Your task to perform on an android device: turn on translation in the chrome app Image 0: 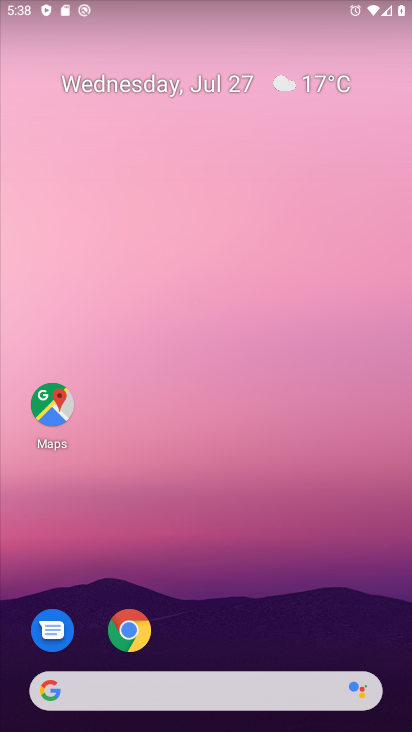
Step 0: press home button
Your task to perform on an android device: turn on translation in the chrome app Image 1: 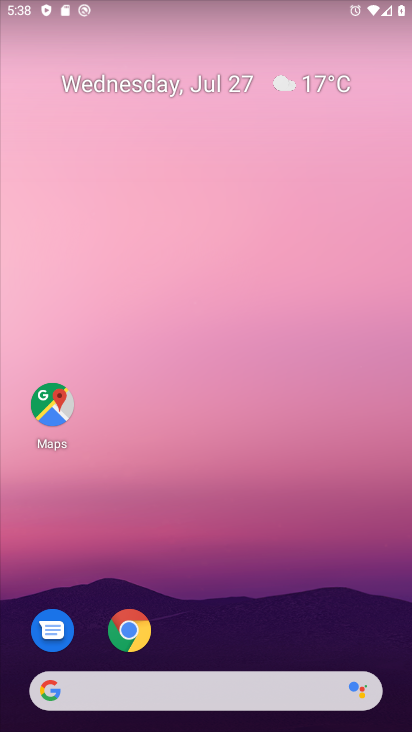
Step 1: click (127, 625)
Your task to perform on an android device: turn on translation in the chrome app Image 2: 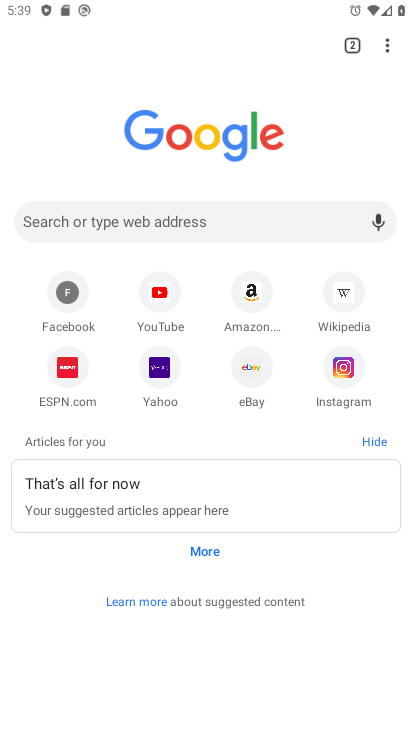
Step 2: click (386, 38)
Your task to perform on an android device: turn on translation in the chrome app Image 3: 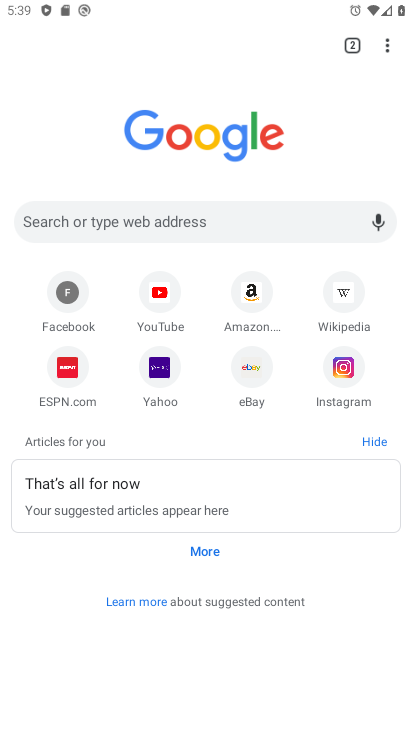
Step 3: click (384, 47)
Your task to perform on an android device: turn on translation in the chrome app Image 4: 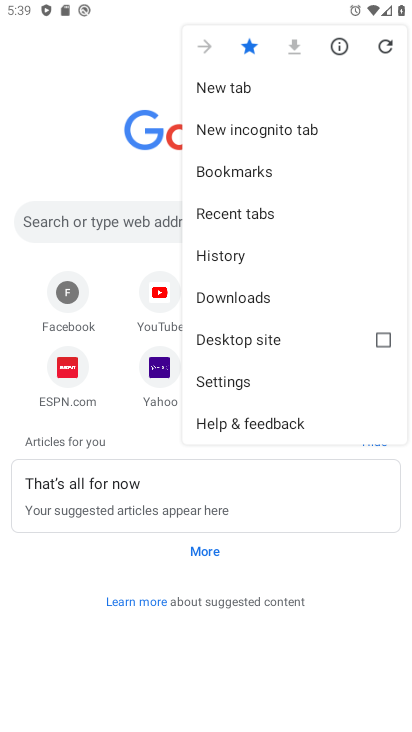
Step 4: click (263, 378)
Your task to perform on an android device: turn on translation in the chrome app Image 5: 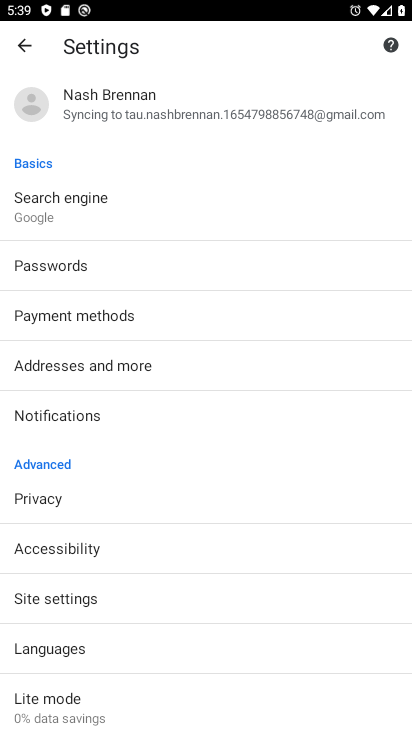
Step 5: click (108, 647)
Your task to perform on an android device: turn on translation in the chrome app Image 6: 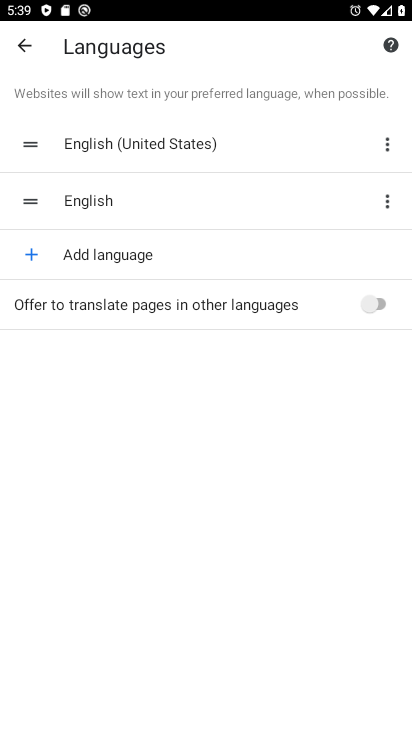
Step 6: click (382, 301)
Your task to perform on an android device: turn on translation in the chrome app Image 7: 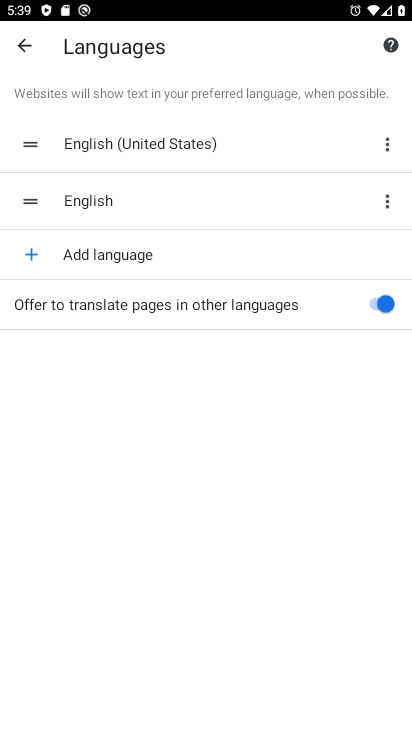
Step 7: task complete